Your task to perform on an android device: Open Google Chrome and open the bookmarks view Image 0: 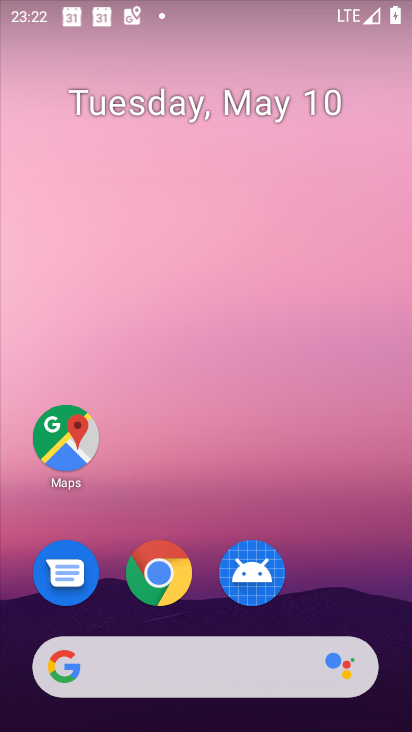
Step 0: press home button
Your task to perform on an android device: Open Google Chrome and open the bookmarks view Image 1: 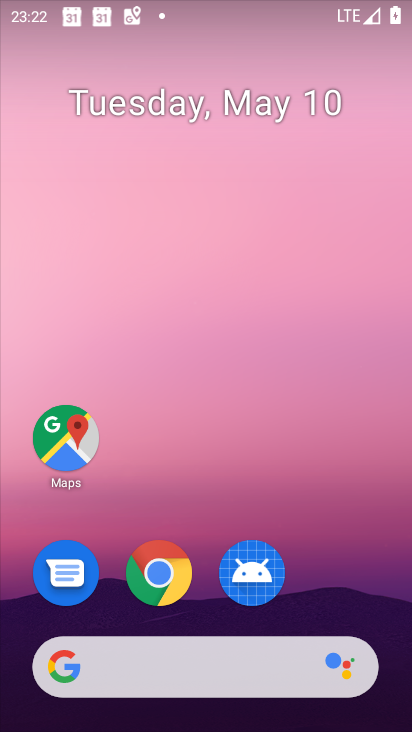
Step 1: click (166, 580)
Your task to perform on an android device: Open Google Chrome and open the bookmarks view Image 2: 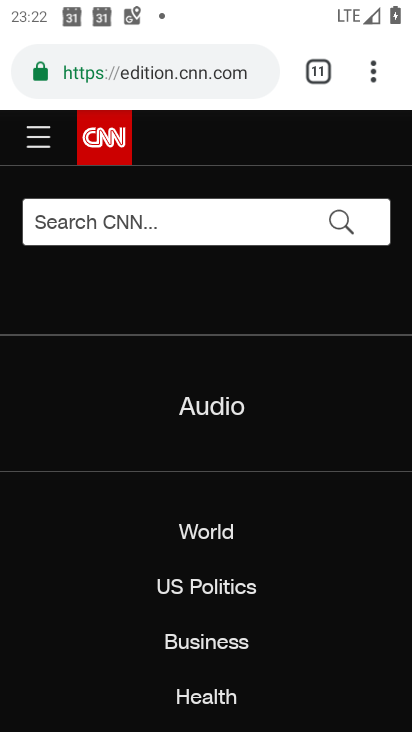
Step 2: click (369, 66)
Your task to perform on an android device: Open Google Chrome and open the bookmarks view Image 3: 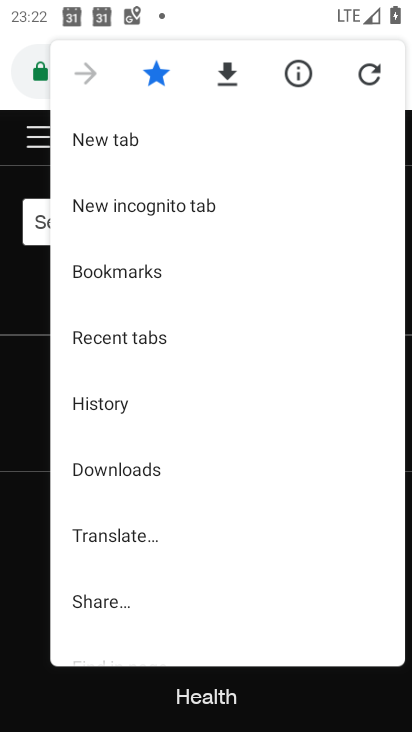
Step 3: click (151, 265)
Your task to perform on an android device: Open Google Chrome and open the bookmarks view Image 4: 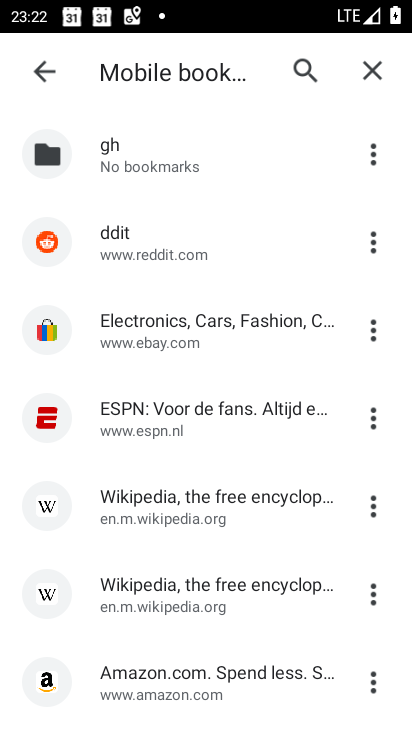
Step 4: click (117, 144)
Your task to perform on an android device: Open Google Chrome and open the bookmarks view Image 5: 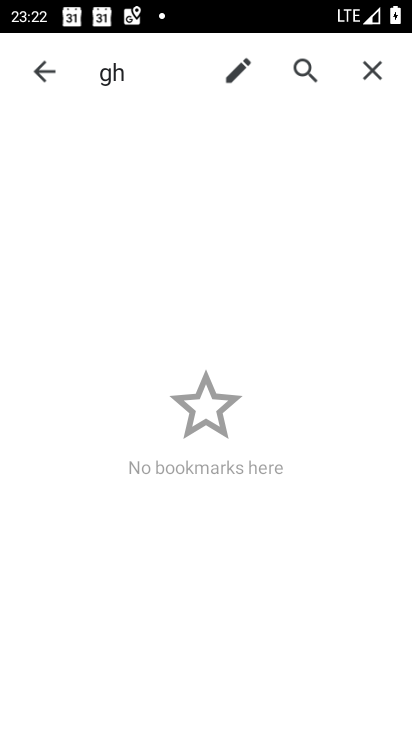
Step 5: task complete